Your task to perform on an android device: What's on my calendar today? Image 0: 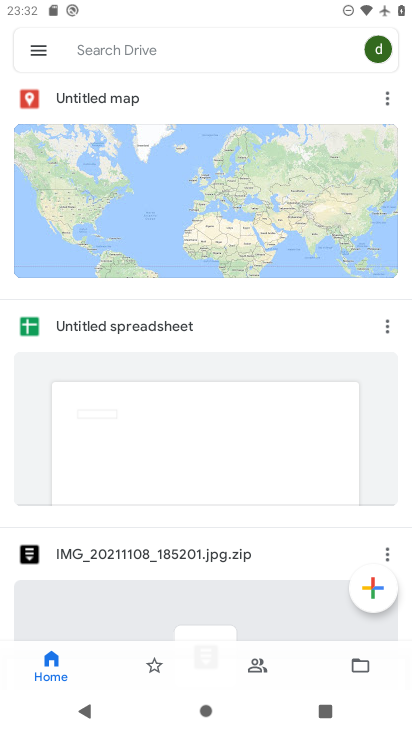
Step 0: press home button
Your task to perform on an android device: What's on my calendar today? Image 1: 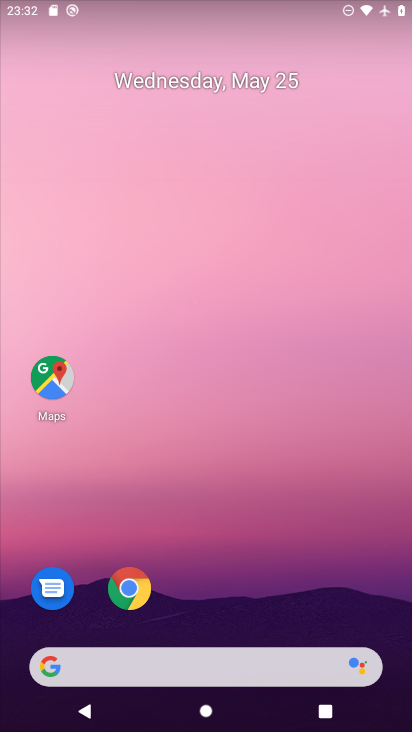
Step 1: drag from (222, 498) to (329, 82)
Your task to perform on an android device: What's on my calendar today? Image 2: 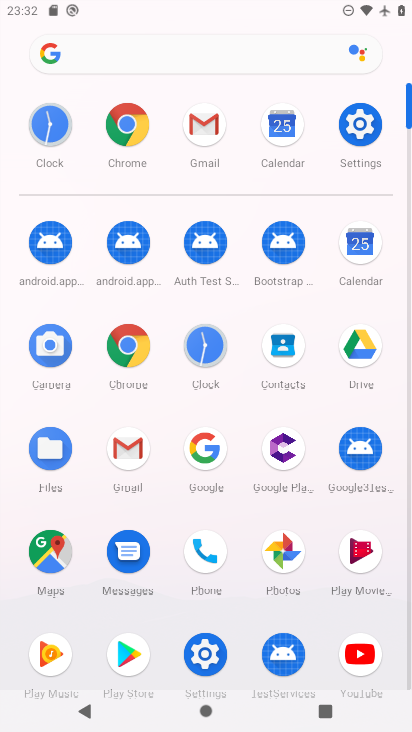
Step 2: click (365, 241)
Your task to perform on an android device: What's on my calendar today? Image 3: 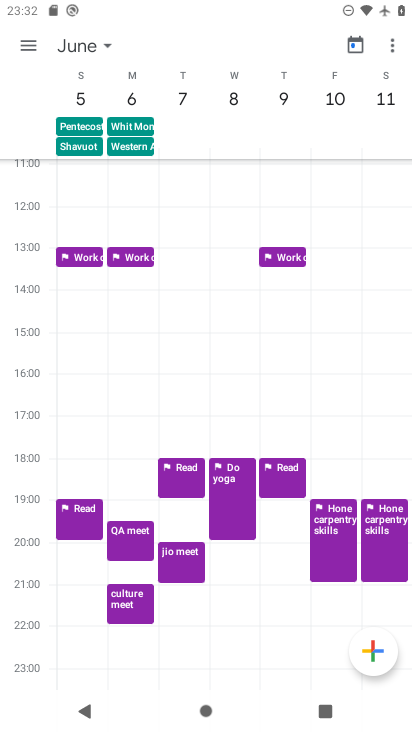
Step 3: click (82, 46)
Your task to perform on an android device: What's on my calendar today? Image 4: 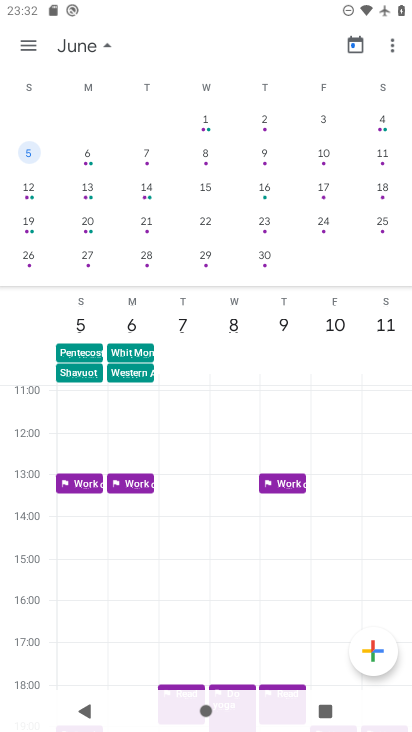
Step 4: drag from (86, 236) to (397, 231)
Your task to perform on an android device: What's on my calendar today? Image 5: 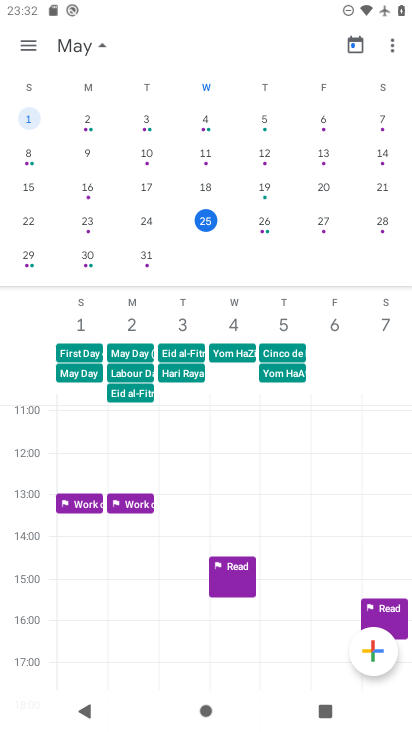
Step 5: click (207, 225)
Your task to perform on an android device: What's on my calendar today? Image 6: 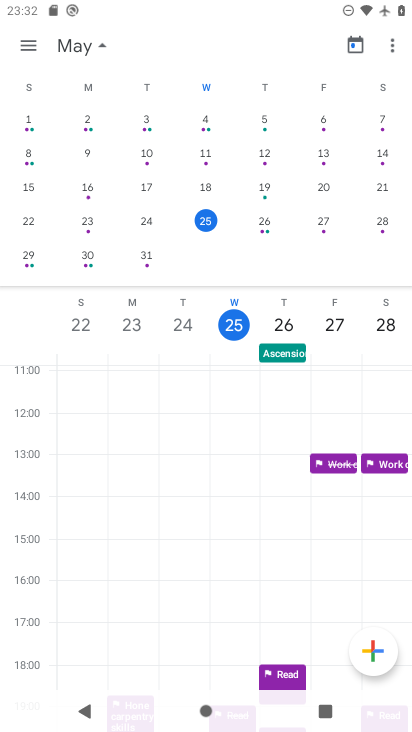
Step 6: task complete